Your task to perform on an android device: move a message to another label in the gmail app Image 0: 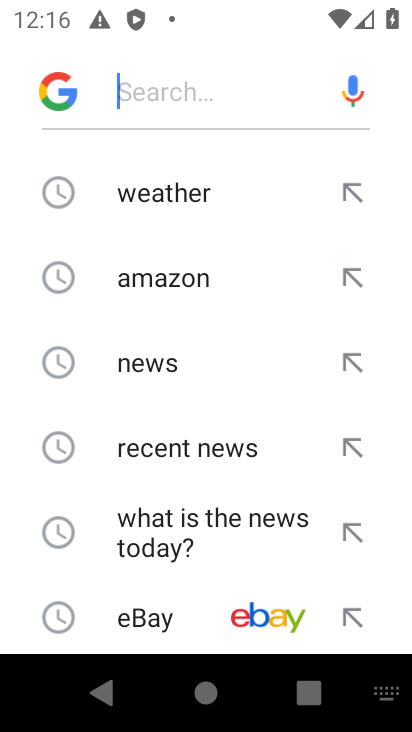
Step 0: press home button
Your task to perform on an android device: move a message to another label in the gmail app Image 1: 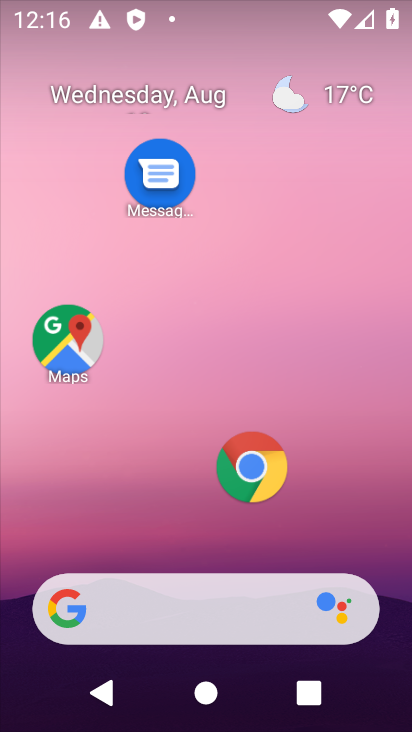
Step 1: drag from (201, 543) to (244, 225)
Your task to perform on an android device: move a message to another label in the gmail app Image 2: 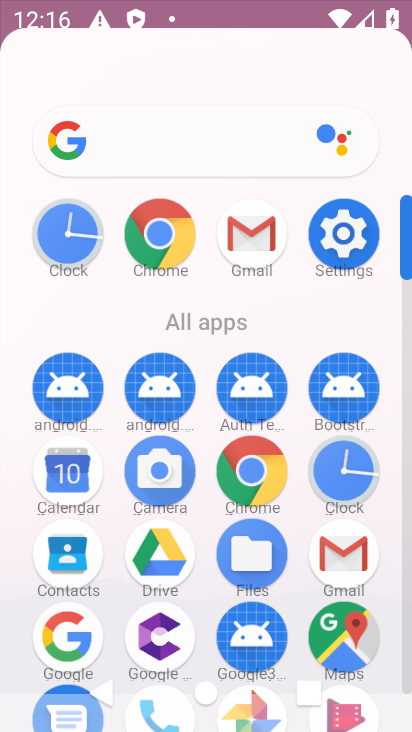
Step 2: click (244, 225)
Your task to perform on an android device: move a message to another label in the gmail app Image 3: 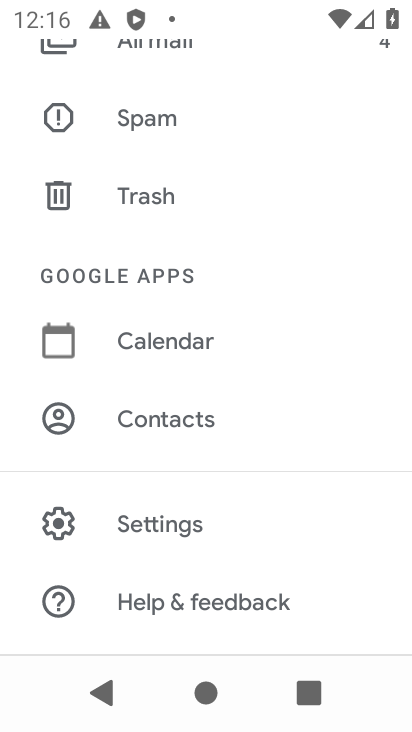
Step 3: press back button
Your task to perform on an android device: move a message to another label in the gmail app Image 4: 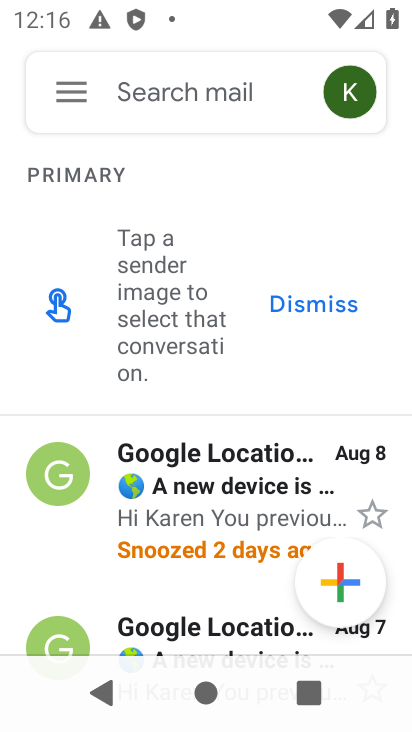
Step 4: click (68, 471)
Your task to perform on an android device: move a message to another label in the gmail app Image 5: 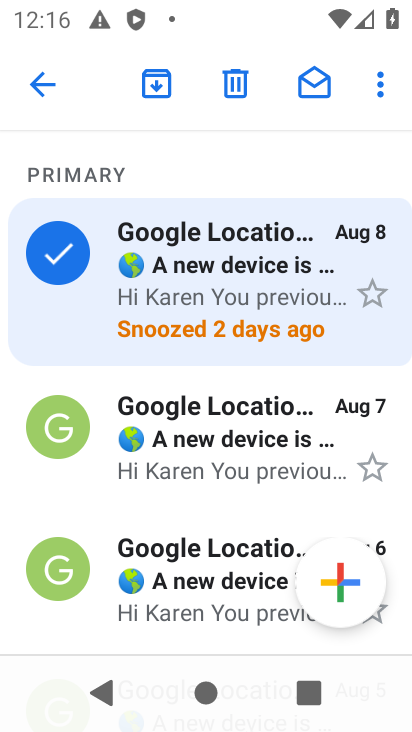
Step 5: click (394, 78)
Your task to perform on an android device: move a message to another label in the gmail app Image 6: 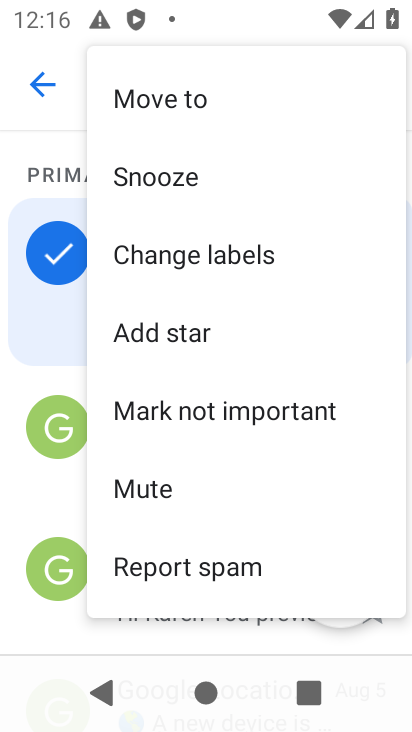
Step 6: click (255, 112)
Your task to perform on an android device: move a message to another label in the gmail app Image 7: 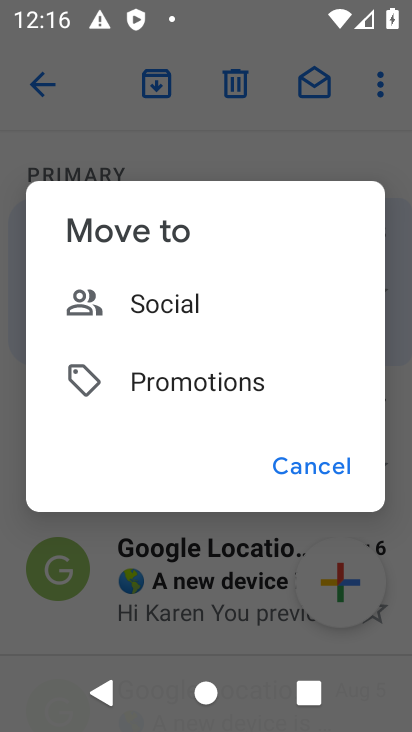
Step 7: click (158, 366)
Your task to perform on an android device: move a message to another label in the gmail app Image 8: 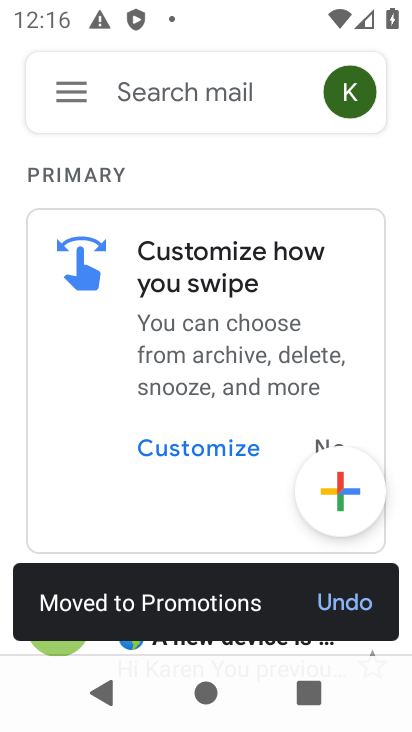
Step 8: task complete